Your task to perform on an android device: toggle notifications settings in the gmail app Image 0: 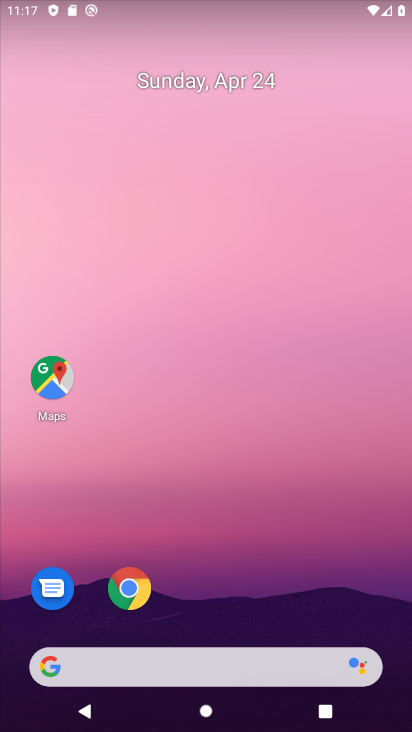
Step 0: drag from (234, 544) to (228, 106)
Your task to perform on an android device: toggle notifications settings in the gmail app Image 1: 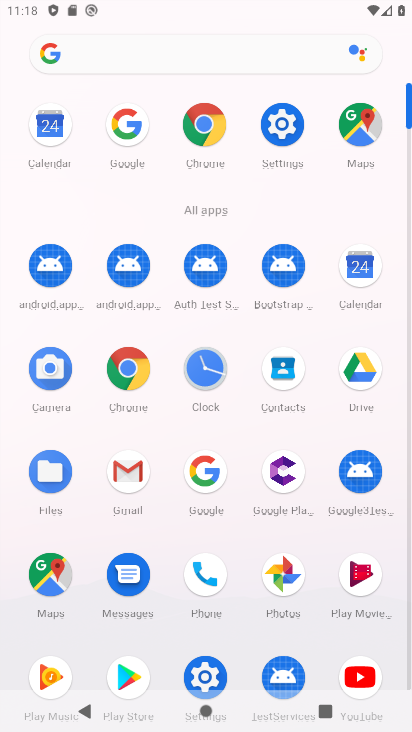
Step 1: click (135, 476)
Your task to perform on an android device: toggle notifications settings in the gmail app Image 2: 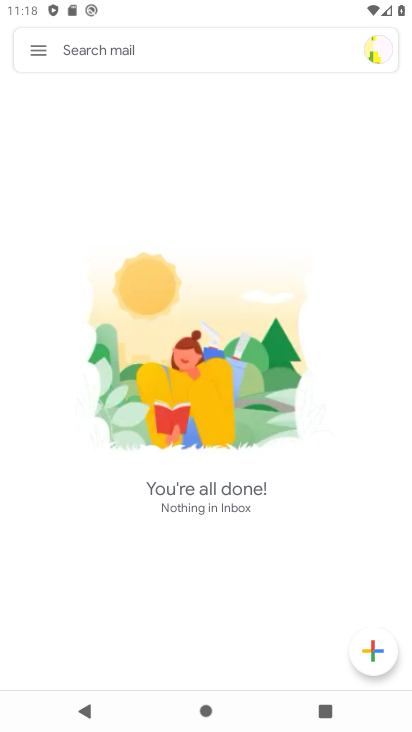
Step 2: click (42, 51)
Your task to perform on an android device: toggle notifications settings in the gmail app Image 3: 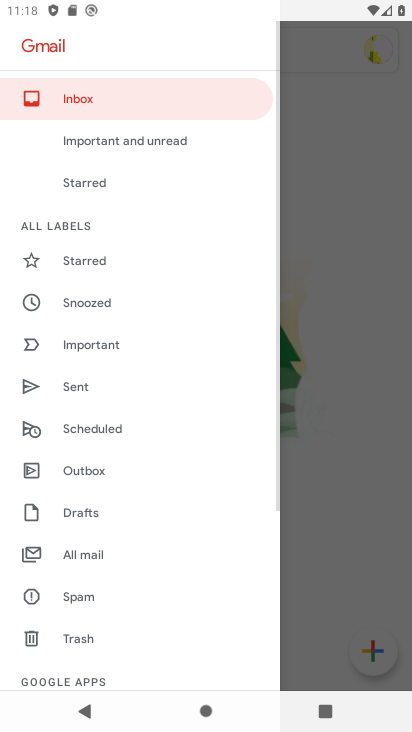
Step 3: drag from (140, 586) to (188, 145)
Your task to perform on an android device: toggle notifications settings in the gmail app Image 4: 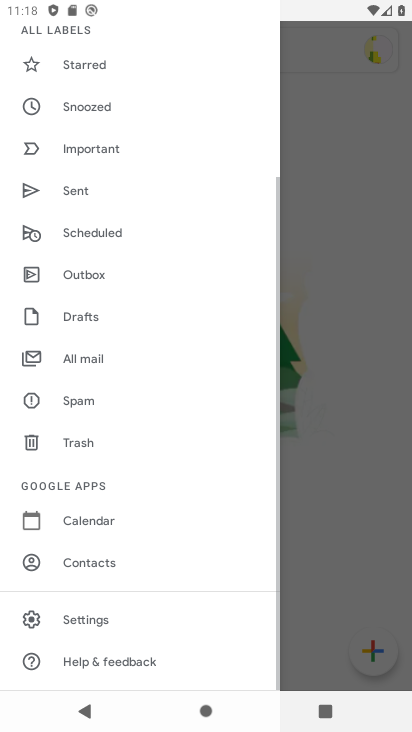
Step 4: click (122, 613)
Your task to perform on an android device: toggle notifications settings in the gmail app Image 5: 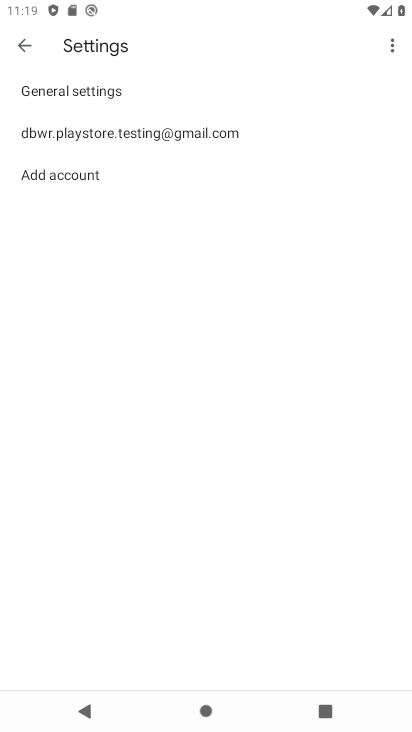
Step 5: click (108, 85)
Your task to perform on an android device: toggle notifications settings in the gmail app Image 6: 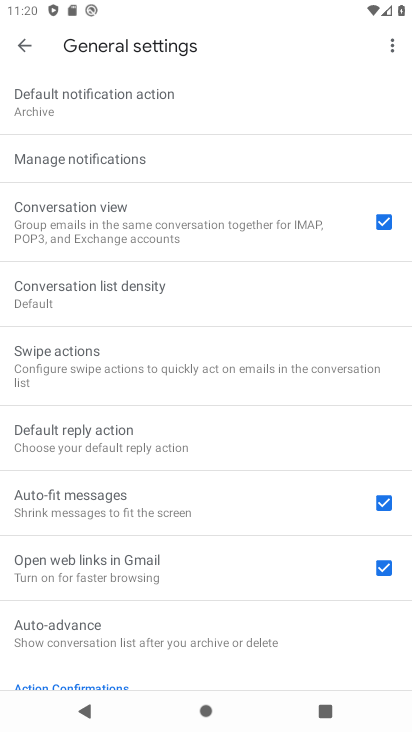
Step 6: click (121, 156)
Your task to perform on an android device: toggle notifications settings in the gmail app Image 7: 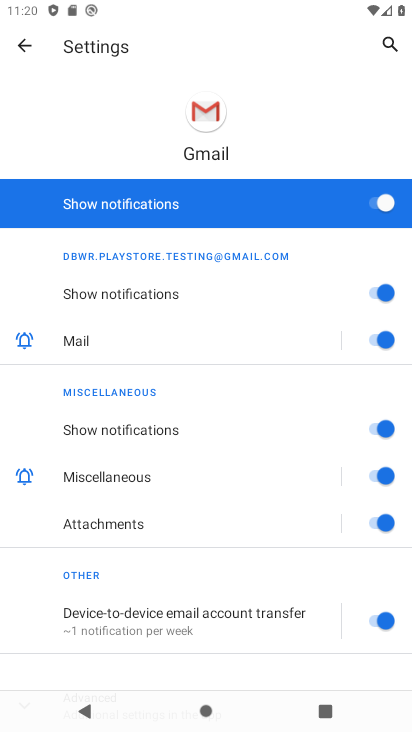
Step 7: click (378, 198)
Your task to perform on an android device: toggle notifications settings in the gmail app Image 8: 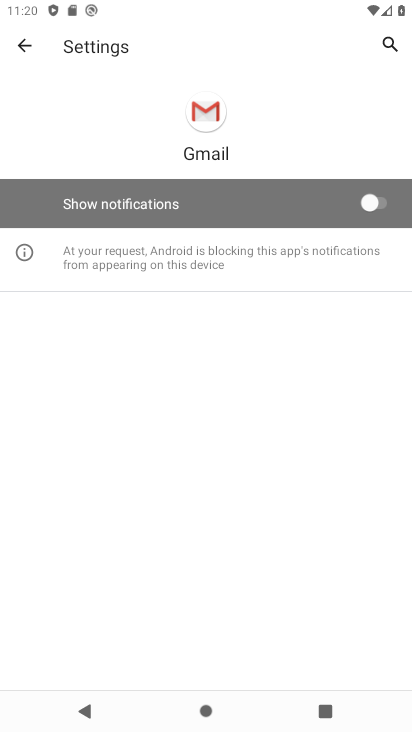
Step 8: task complete